Your task to perform on an android device: Open CNN.com Image 0: 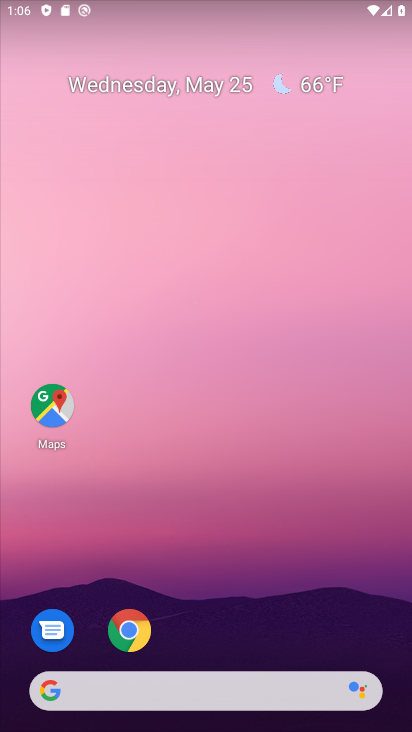
Step 0: press home button
Your task to perform on an android device: Open CNN.com Image 1: 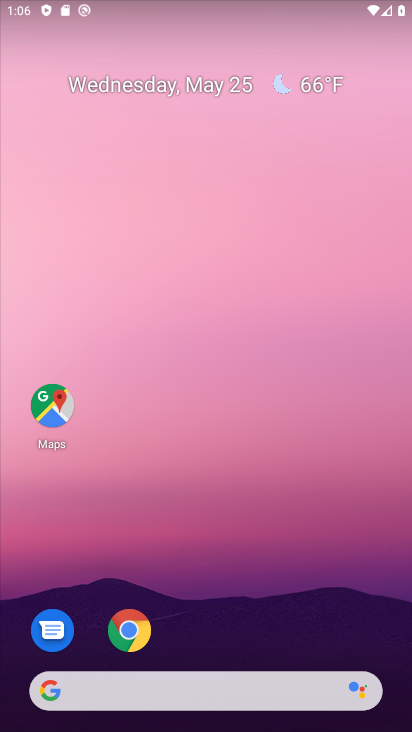
Step 1: click (123, 624)
Your task to perform on an android device: Open CNN.com Image 2: 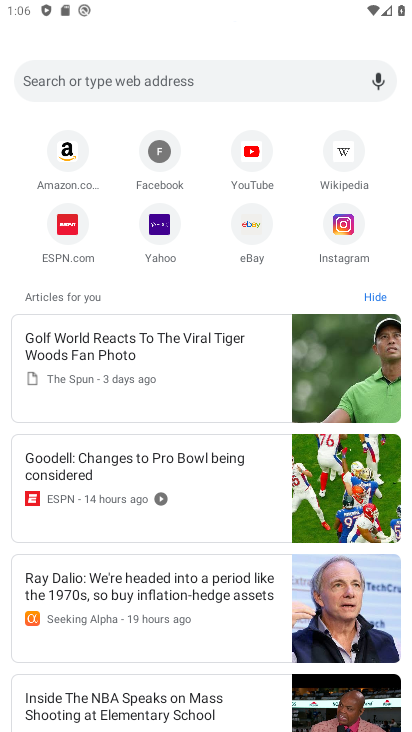
Step 2: click (196, 75)
Your task to perform on an android device: Open CNN.com Image 3: 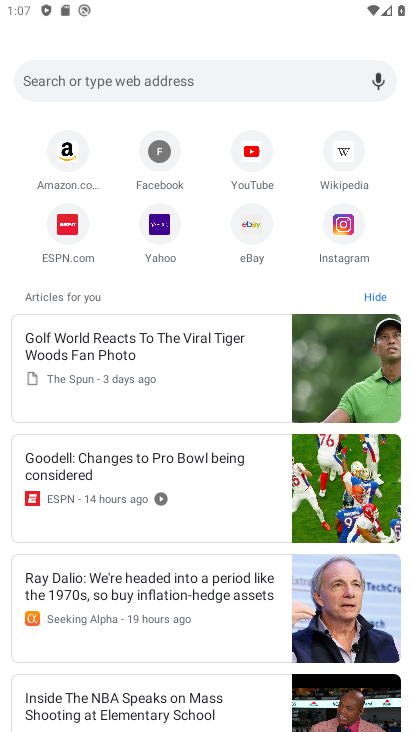
Step 3: click (99, 76)
Your task to perform on an android device: Open CNN.com Image 4: 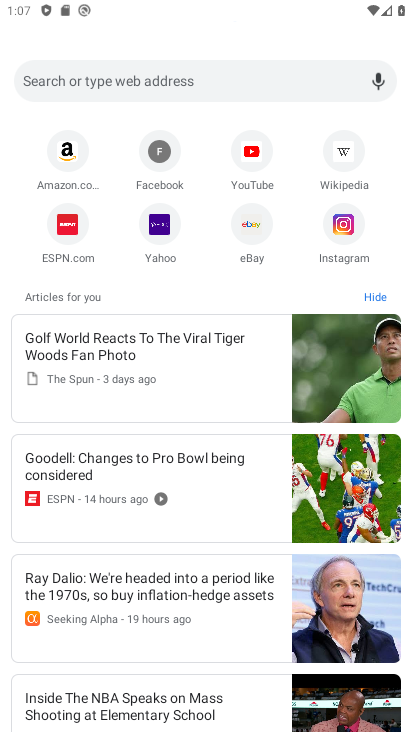
Step 4: click (88, 80)
Your task to perform on an android device: Open CNN.com Image 5: 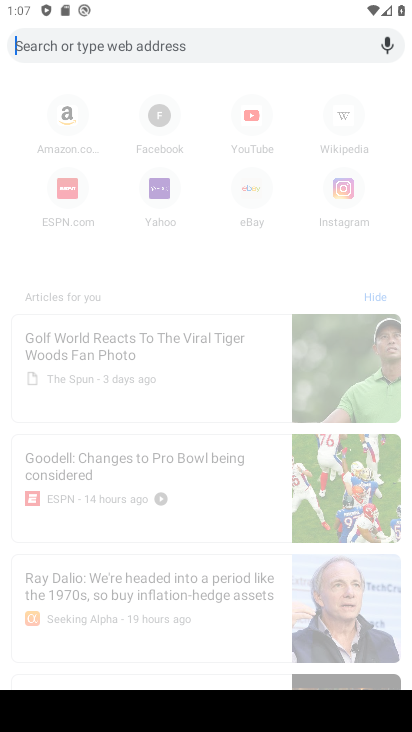
Step 5: type "cnn.com"
Your task to perform on an android device: Open CNN.com Image 6: 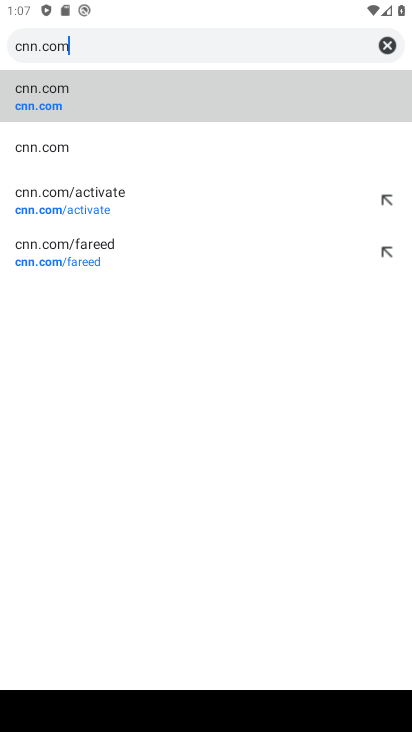
Step 6: click (67, 97)
Your task to perform on an android device: Open CNN.com Image 7: 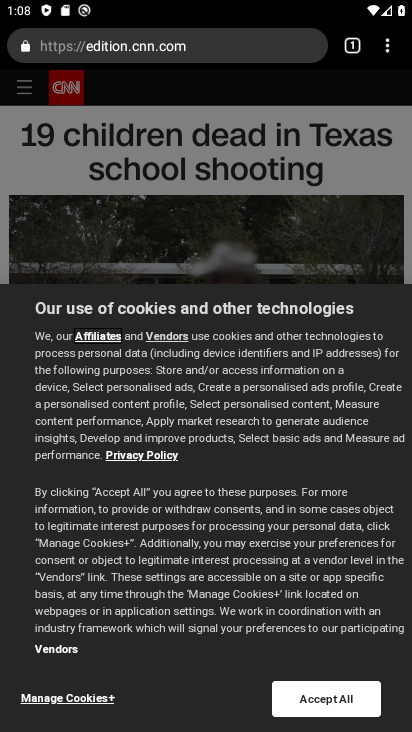
Step 7: click (332, 696)
Your task to perform on an android device: Open CNN.com Image 8: 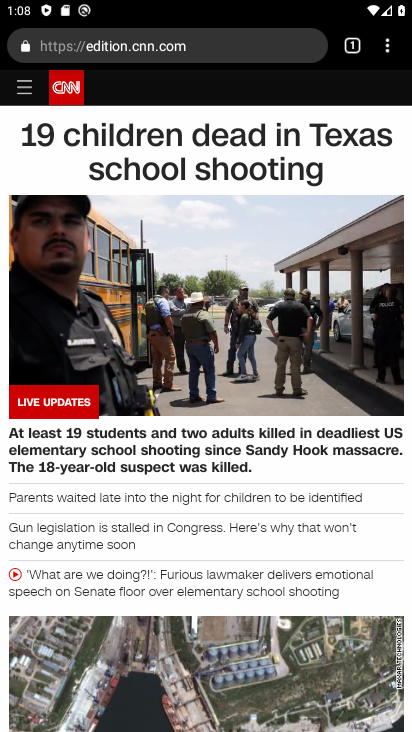
Step 8: task complete